Your task to perform on an android device: turn off translation in the chrome app Image 0: 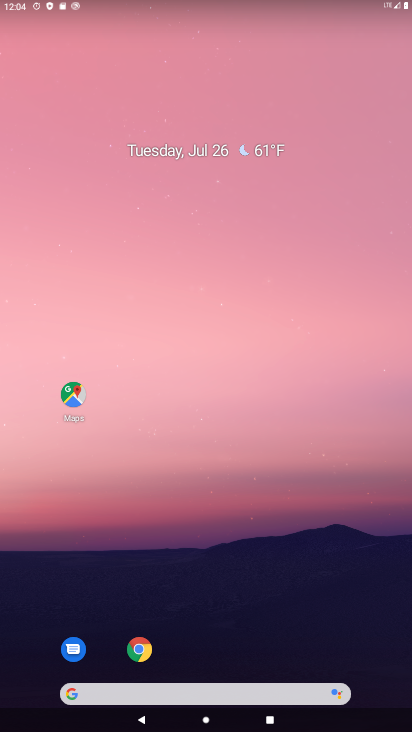
Step 0: drag from (217, 668) to (240, 23)
Your task to perform on an android device: turn off translation in the chrome app Image 1: 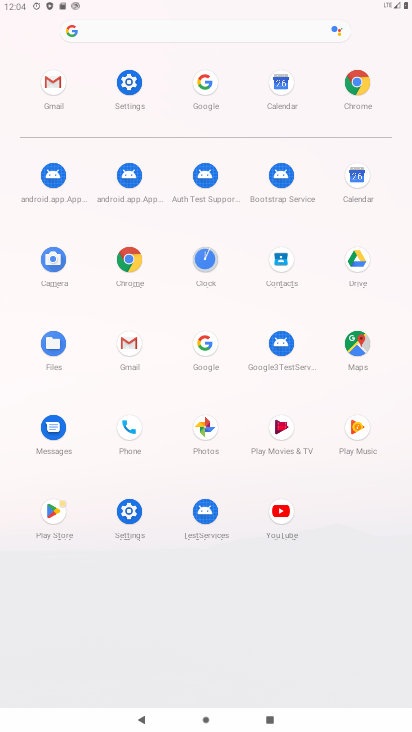
Step 1: click (128, 258)
Your task to perform on an android device: turn off translation in the chrome app Image 2: 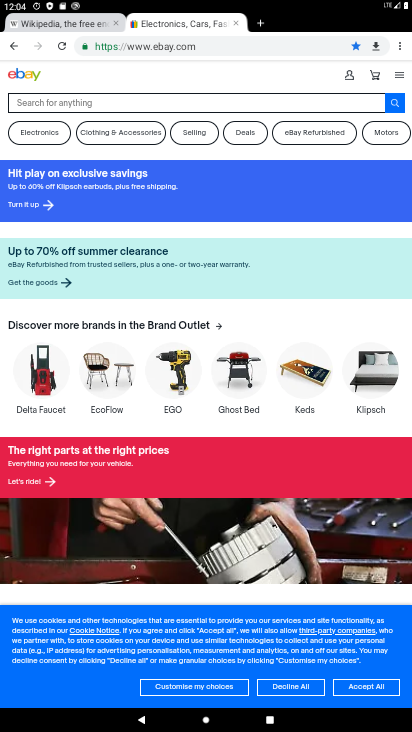
Step 2: drag from (395, 46) to (308, 298)
Your task to perform on an android device: turn off translation in the chrome app Image 3: 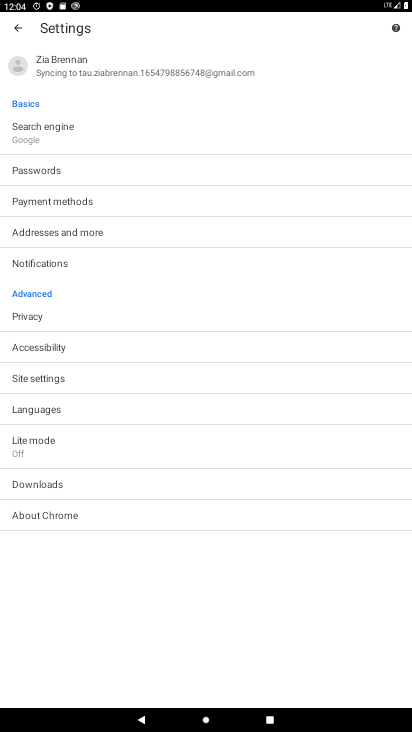
Step 3: click (33, 404)
Your task to perform on an android device: turn off translation in the chrome app Image 4: 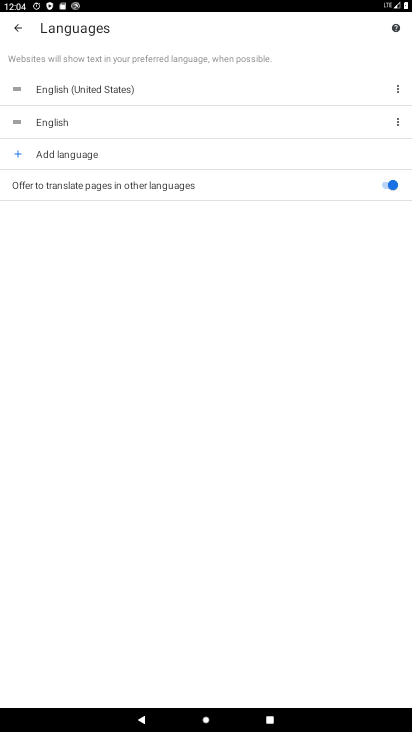
Step 4: click (386, 184)
Your task to perform on an android device: turn off translation in the chrome app Image 5: 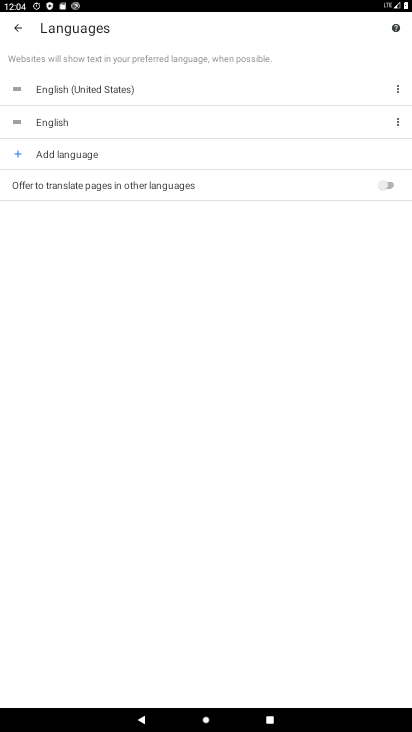
Step 5: task complete